Your task to perform on an android device: Open the phone app and click the voicemail tab. Image 0: 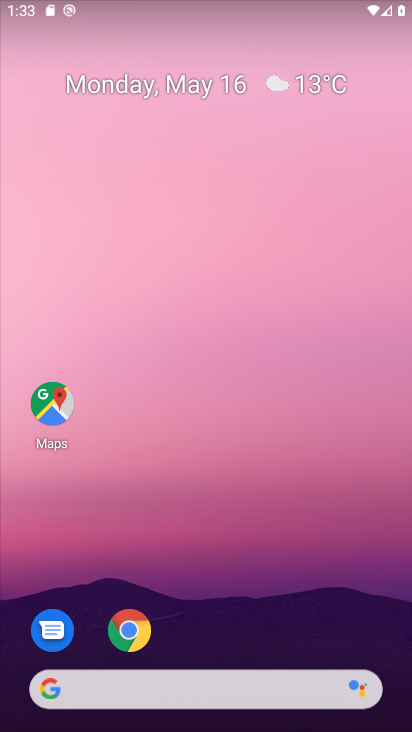
Step 0: drag from (379, 606) to (367, 114)
Your task to perform on an android device: Open the phone app and click the voicemail tab. Image 1: 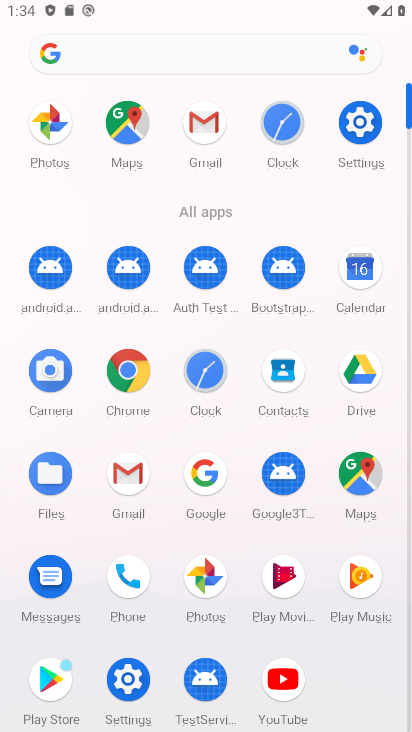
Step 1: click (108, 577)
Your task to perform on an android device: Open the phone app and click the voicemail tab. Image 2: 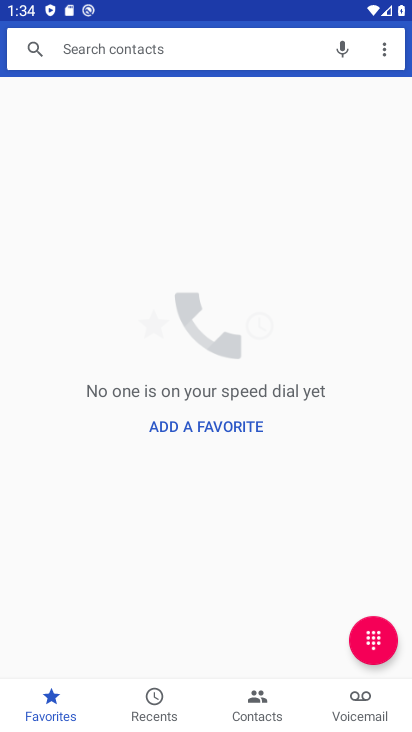
Step 2: click (356, 688)
Your task to perform on an android device: Open the phone app and click the voicemail tab. Image 3: 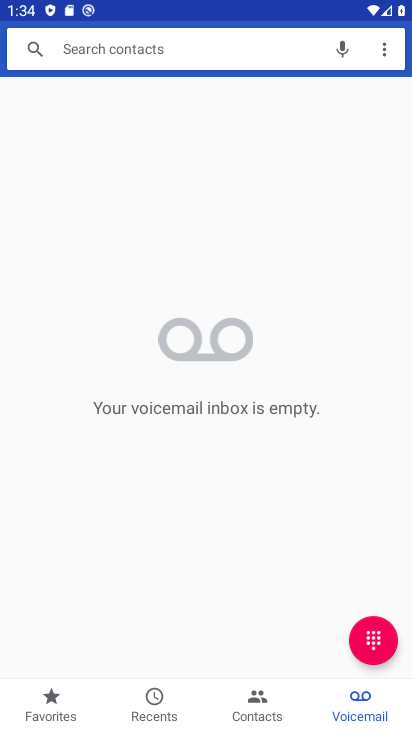
Step 3: task complete